Your task to perform on an android device: Open Amazon Image 0: 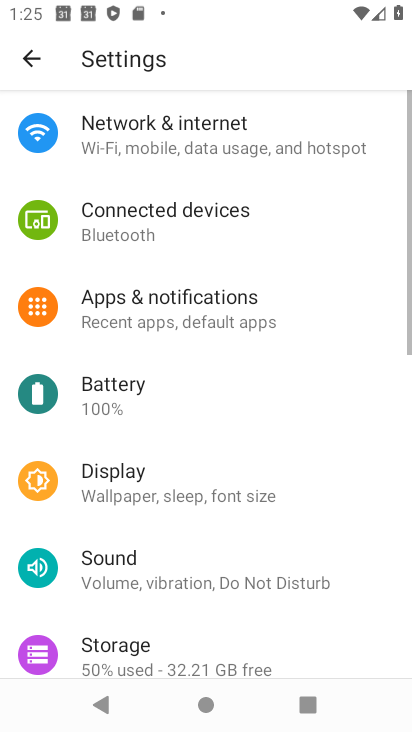
Step 0: drag from (187, 556) to (289, 146)
Your task to perform on an android device: Open Amazon Image 1: 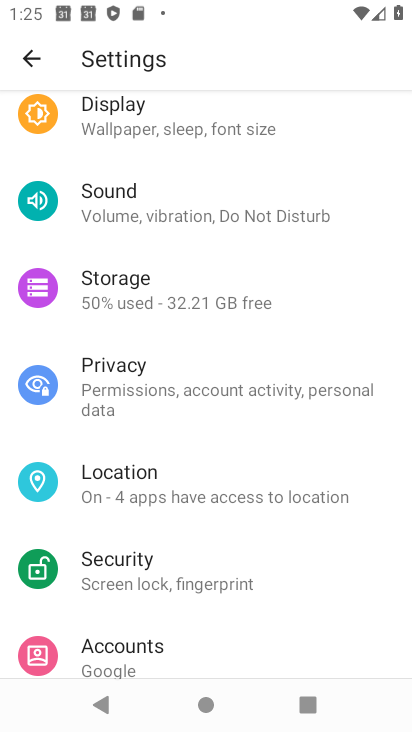
Step 1: press home button
Your task to perform on an android device: Open Amazon Image 2: 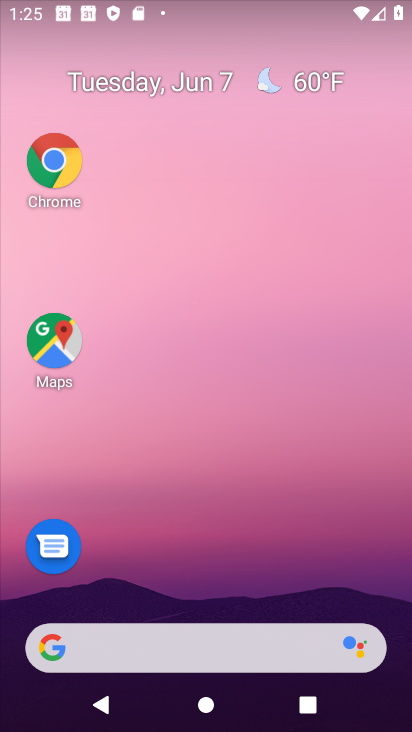
Step 2: click (169, 661)
Your task to perform on an android device: Open Amazon Image 3: 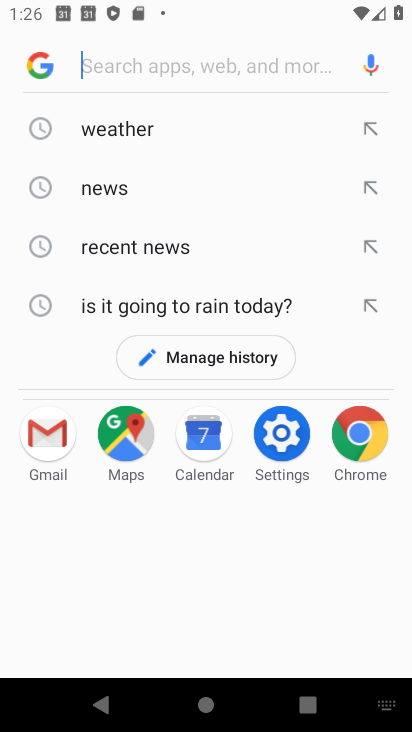
Step 3: click (131, 67)
Your task to perform on an android device: Open Amazon Image 4: 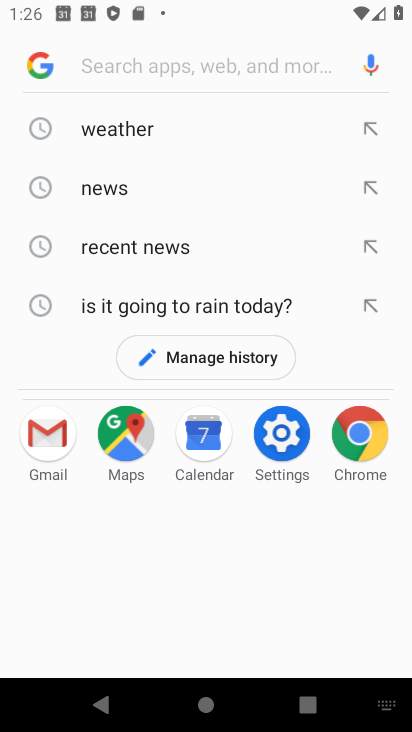
Step 4: type " Amazon"
Your task to perform on an android device: Open Amazon Image 5: 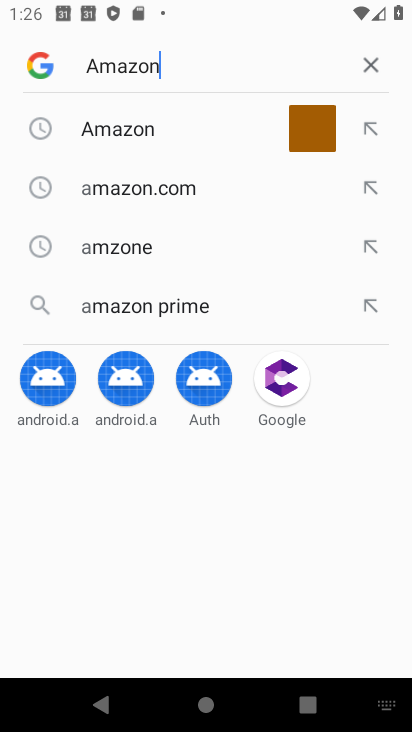
Step 5: type ""
Your task to perform on an android device: Open Amazon Image 6: 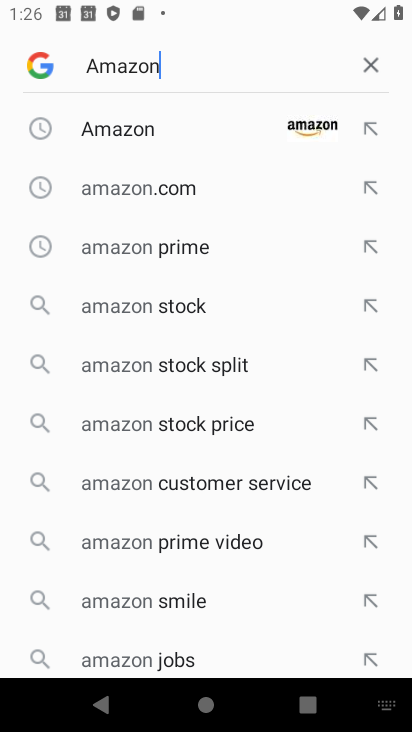
Step 6: click (168, 136)
Your task to perform on an android device: Open Amazon Image 7: 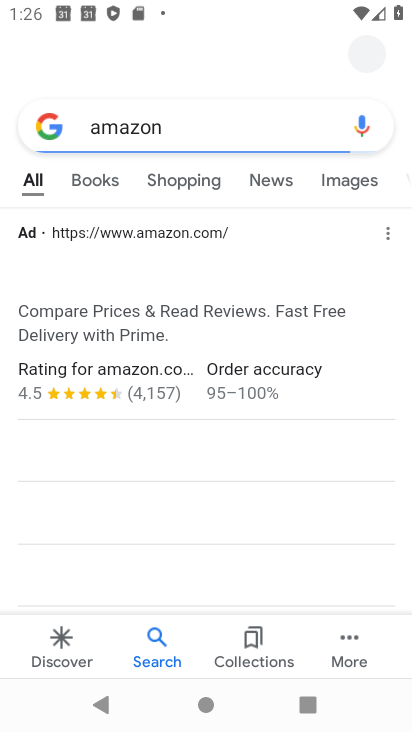
Step 7: drag from (245, 457) to (283, 198)
Your task to perform on an android device: Open Amazon Image 8: 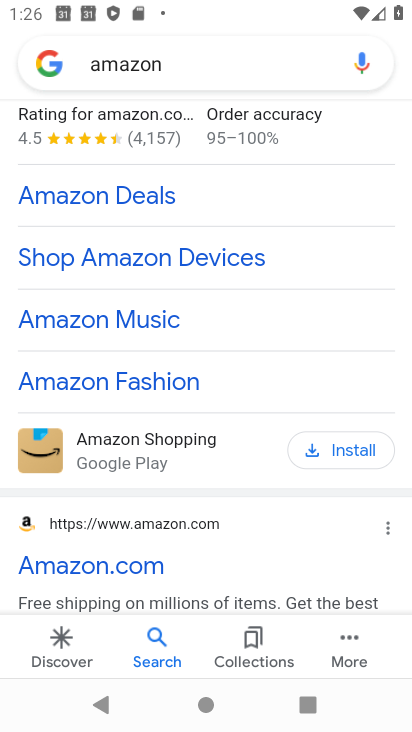
Step 8: drag from (265, 257) to (289, 711)
Your task to perform on an android device: Open Amazon Image 9: 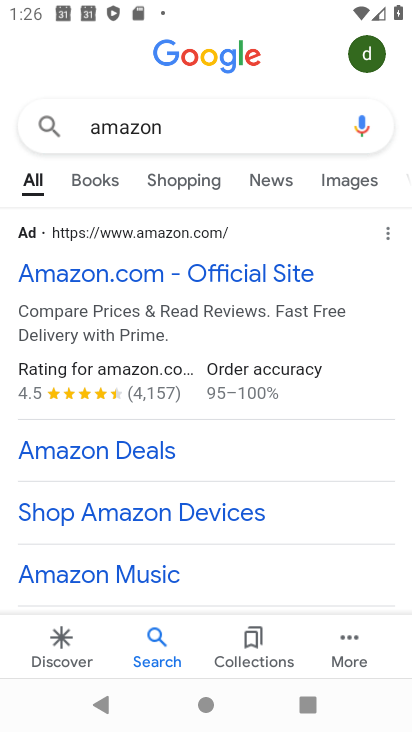
Step 9: click (81, 274)
Your task to perform on an android device: Open Amazon Image 10: 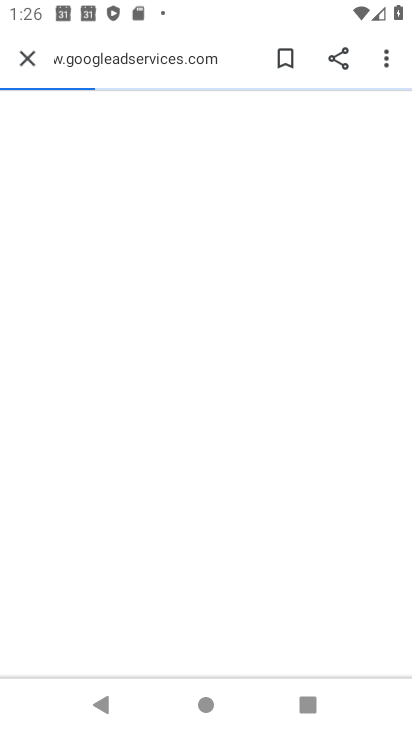
Step 10: task complete